Your task to perform on an android device: add a label to a message in the gmail app Image 0: 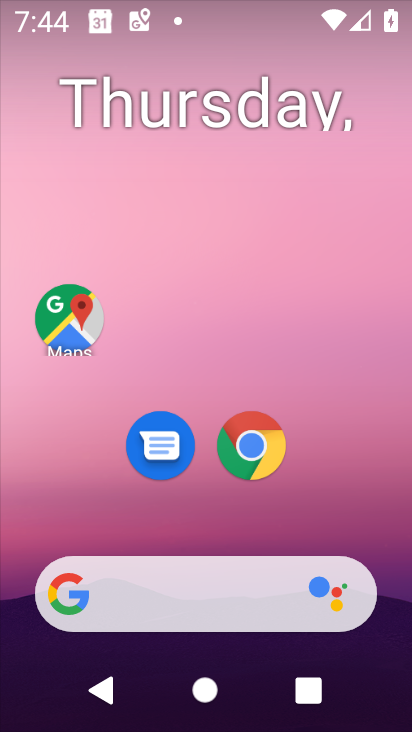
Step 0: drag from (399, 648) to (342, 224)
Your task to perform on an android device: add a label to a message in the gmail app Image 1: 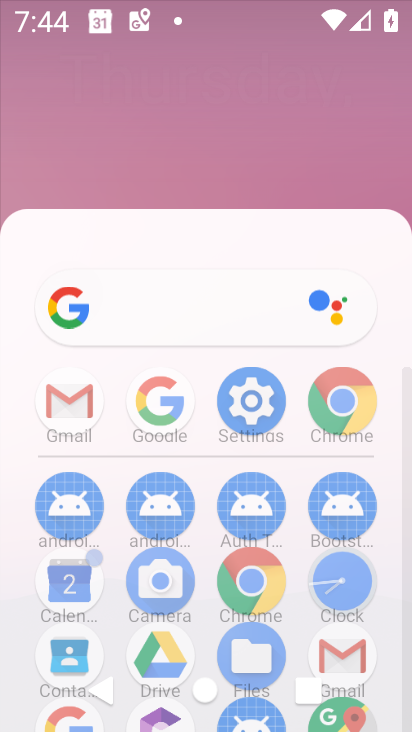
Step 1: drag from (239, 42) to (214, 0)
Your task to perform on an android device: add a label to a message in the gmail app Image 2: 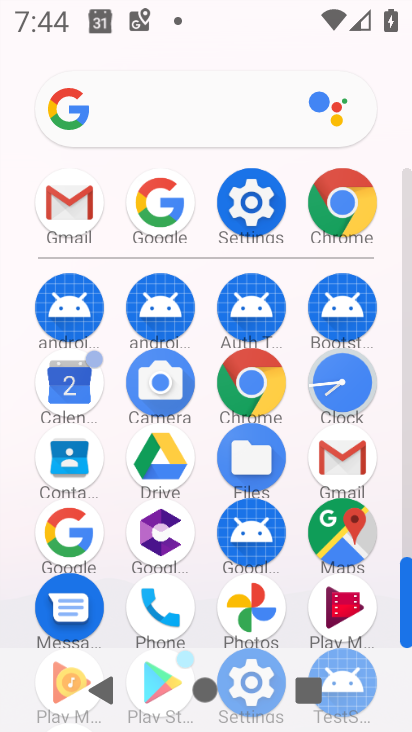
Step 2: click (365, 464)
Your task to perform on an android device: add a label to a message in the gmail app Image 3: 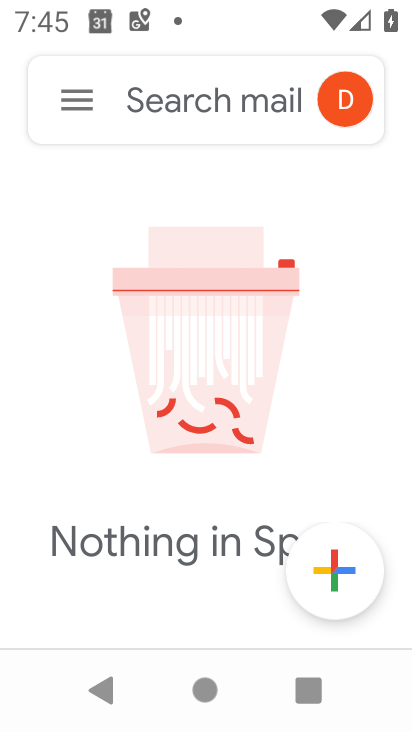
Step 3: click (48, 99)
Your task to perform on an android device: add a label to a message in the gmail app Image 4: 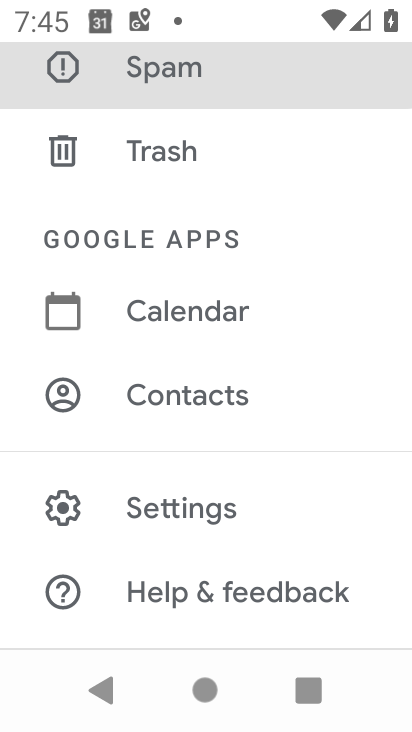
Step 4: drag from (117, 120) to (156, 712)
Your task to perform on an android device: add a label to a message in the gmail app Image 5: 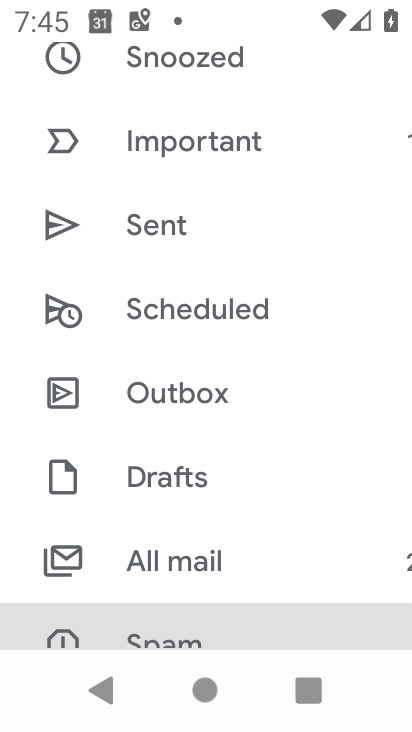
Step 5: drag from (168, 168) to (200, 725)
Your task to perform on an android device: add a label to a message in the gmail app Image 6: 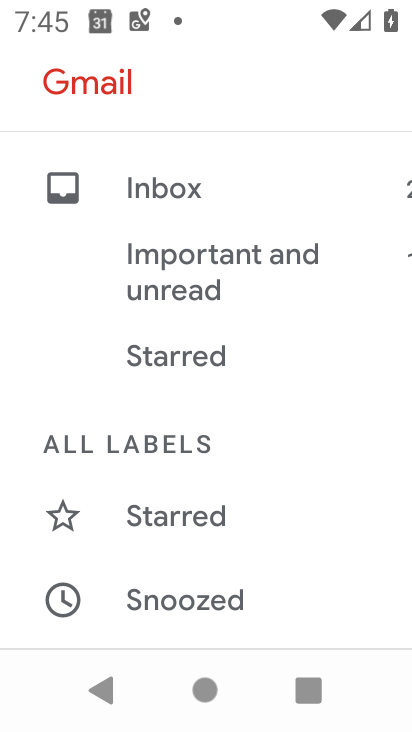
Step 6: click (184, 192)
Your task to perform on an android device: add a label to a message in the gmail app Image 7: 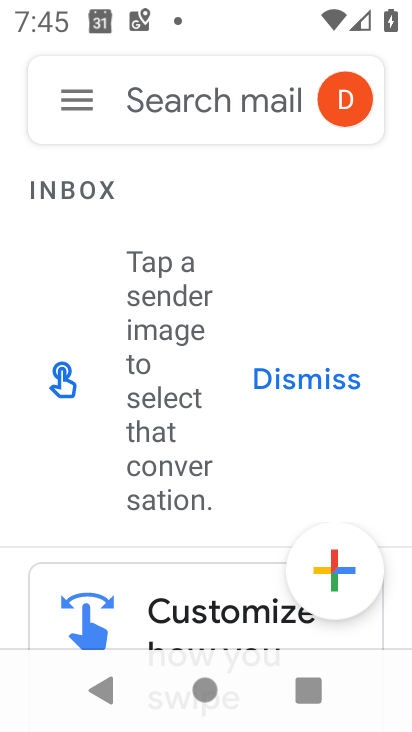
Step 7: drag from (214, 603) to (210, 133)
Your task to perform on an android device: add a label to a message in the gmail app Image 8: 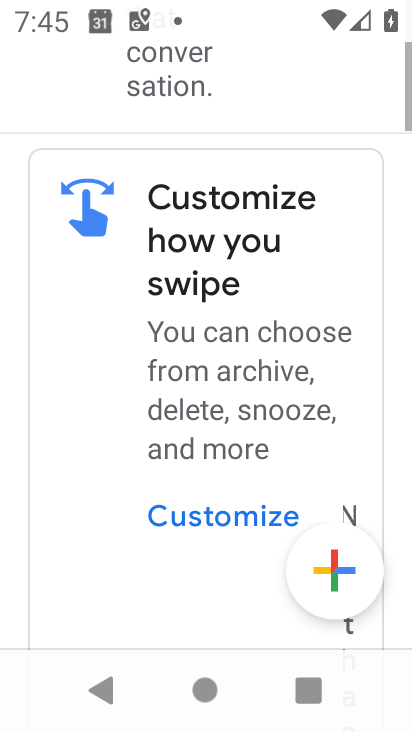
Step 8: click (205, 95)
Your task to perform on an android device: add a label to a message in the gmail app Image 9: 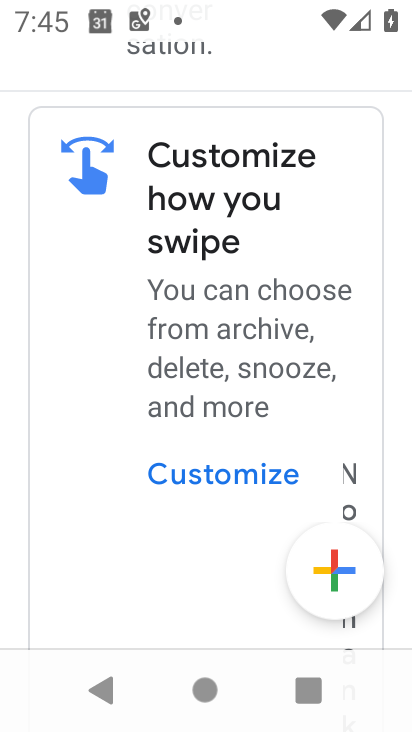
Step 9: task complete